Your task to perform on an android device: Open eBay Image 0: 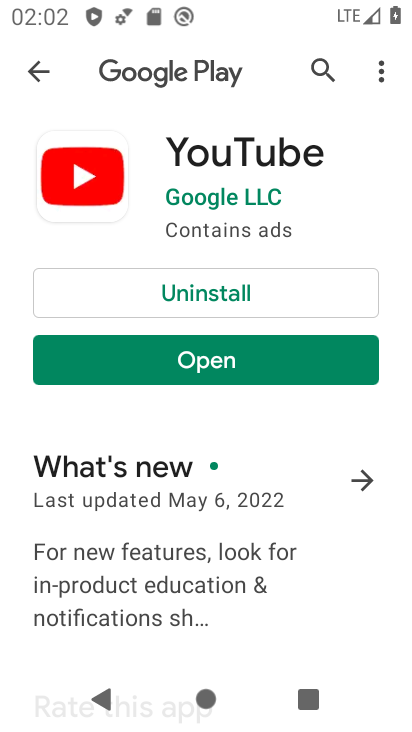
Step 0: press home button
Your task to perform on an android device: Open eBay Image 1: 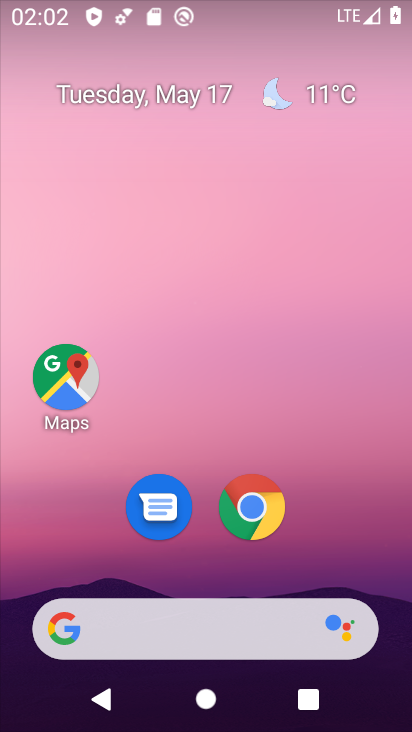
Step 1: click (226, 609)
Your task to perform on an android device: Open eBay Image 2: 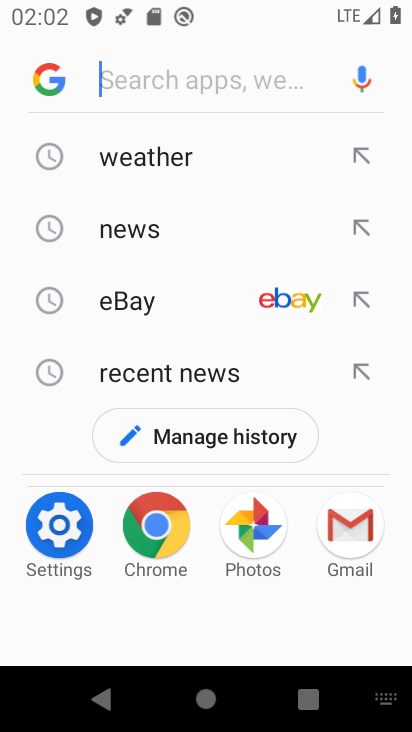
Step 2: click (259, 306)
Your task to perform on an android device: Open eBay Image 3: 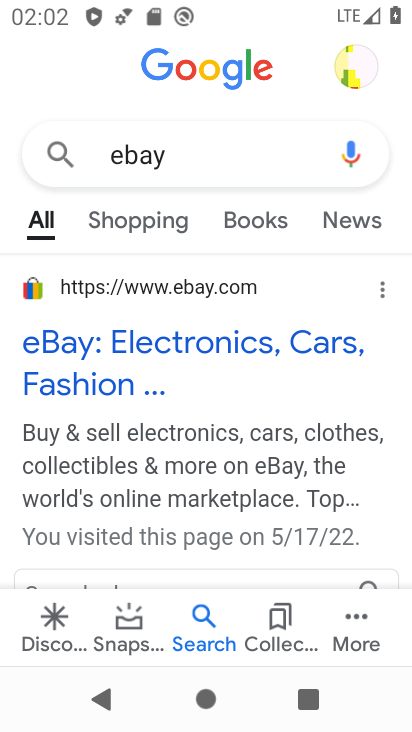
Step 3: task complete